Your task to perform on an android device: stop showing notifications on the lock screen Image 0: 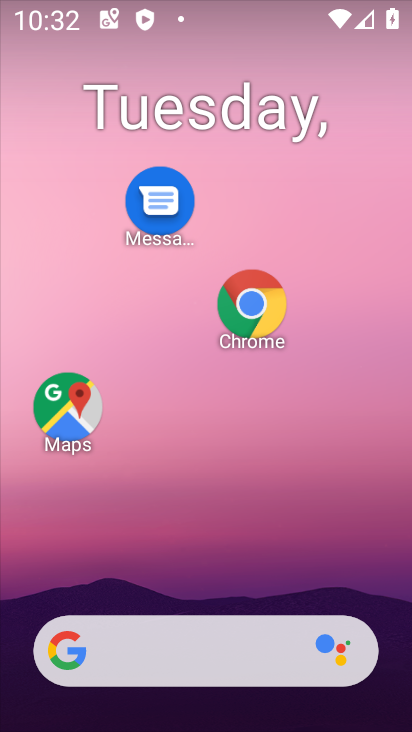
Step 0: press home button
Your task to perform on an android device: stop showing notifications on the lock screen Image 1: 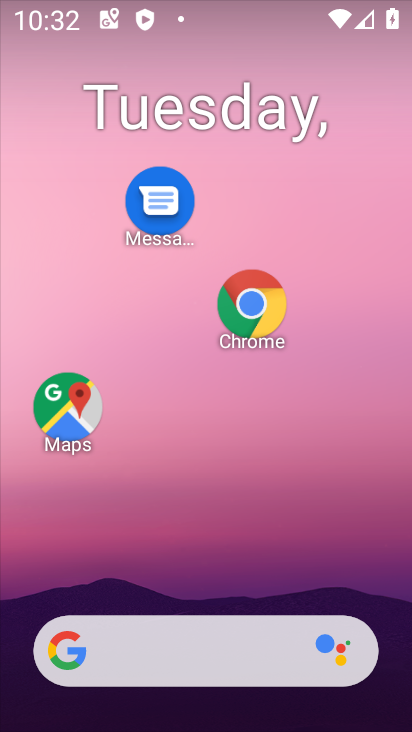
Step 1: drag from (180, 594) to (188, 232)
Your task to perform on an android device: stop showing notifications on the lock screen Image 2: 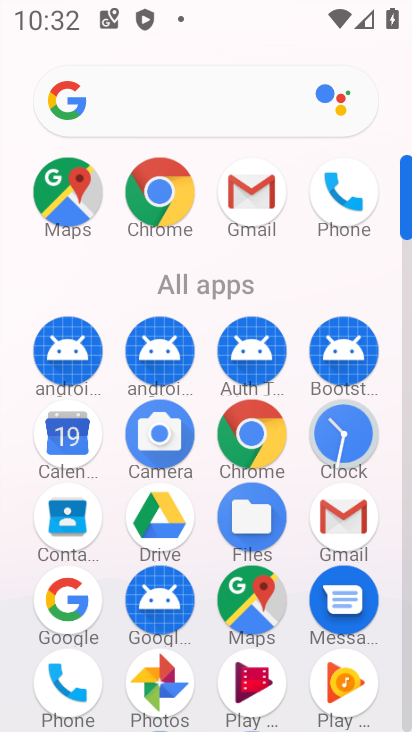
Step 2: drag from (249, 606) to (312, 179)
Your task to perform on an android device: stop showing notifications on the lock screen Image 3: 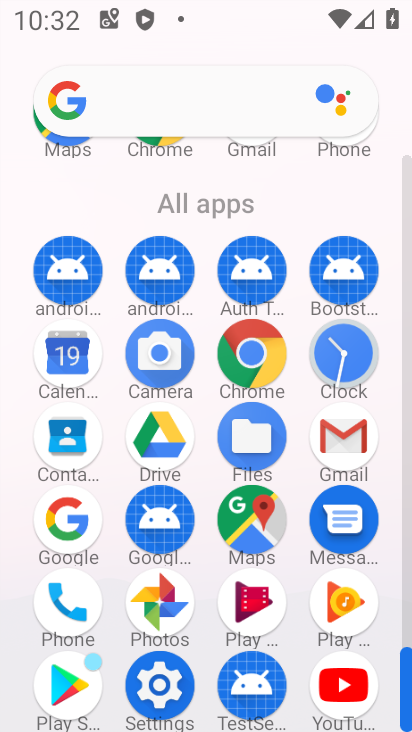
Step 3: click (162, 655)
Your task to perform on an android device: stop showing notifications on the lock screen Image 4: 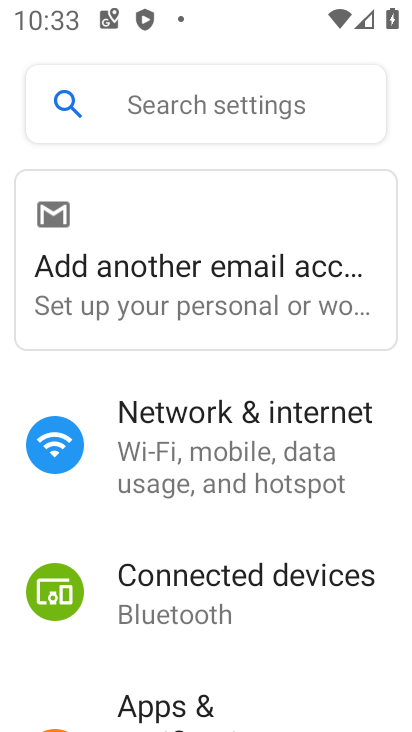
Step 4: drag from (198, 607) to (218, 450)
Your task to perform on an android device: stop showing notifications on the lock screen Image 5: 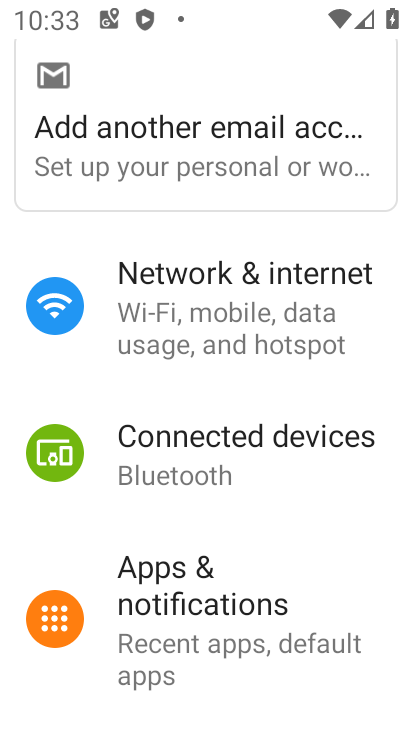
Step 5: click (174, 605)
Your task to perform on an android device: stop showing notifications on the lock screen Image 6: 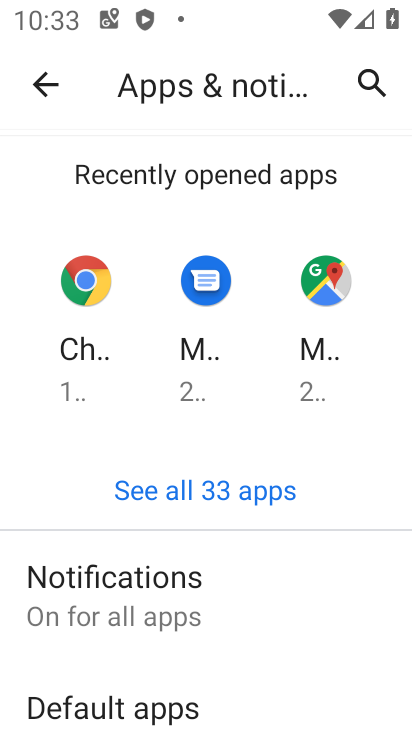
Step 6: drag from (193, 646) to (221, 408)
Your task to perform on an android device: stop showing notifications on the lock screen Image 7: 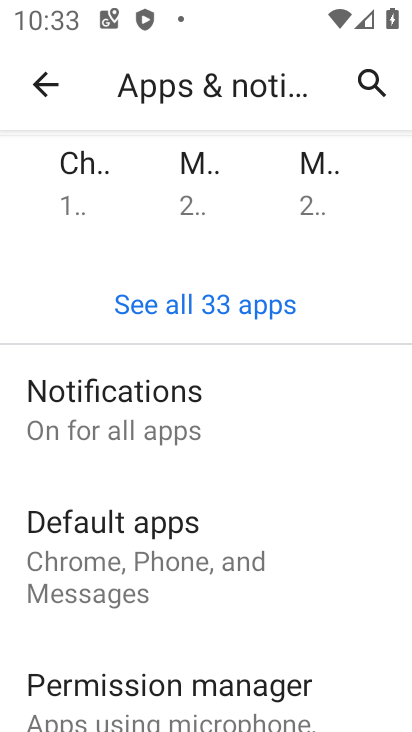
Step 7: click (153, 412)
Your task to perform on an android device: stop showing notifications on the lock screen Image 8: 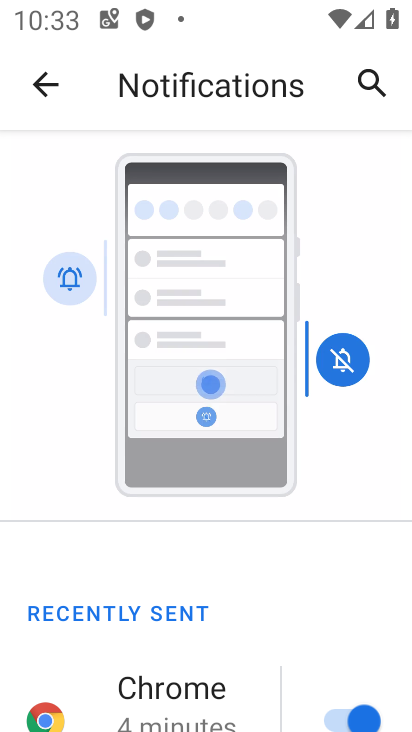
Step 8: drag from (201, 625) to (276, 154)
Your task to perform on an android device: stop showing notifications on the lock screen Image 9: 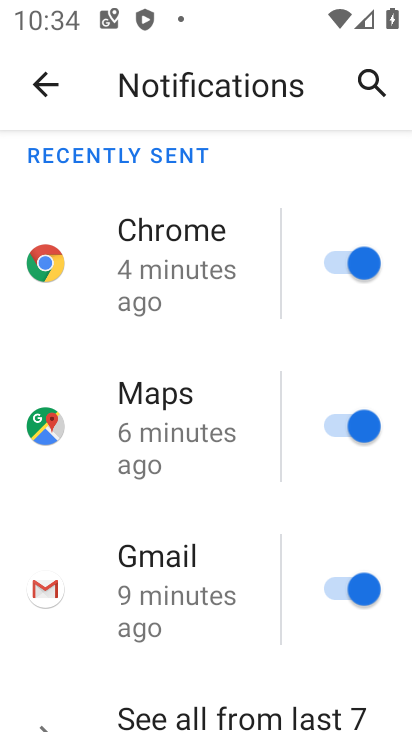
Step 9: drag from (107, 653) to (220, 256)
Your task to perform on an android device: stop showing notifications on the lock screen Image 10: 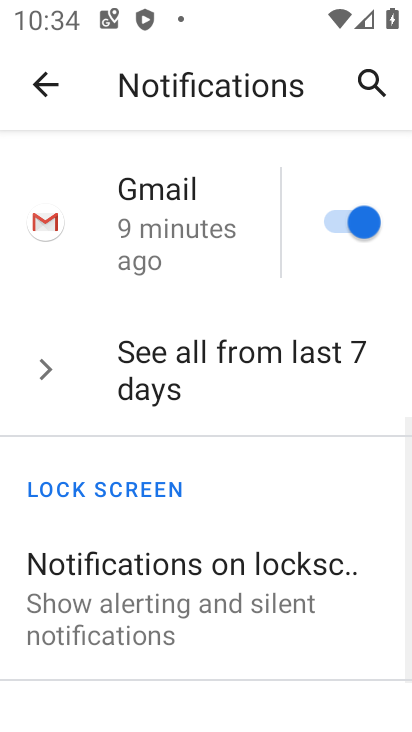
Step 10: click (128, 614)
Your task to perform on an android device: stop showing notifications on the lock screen Image 11: 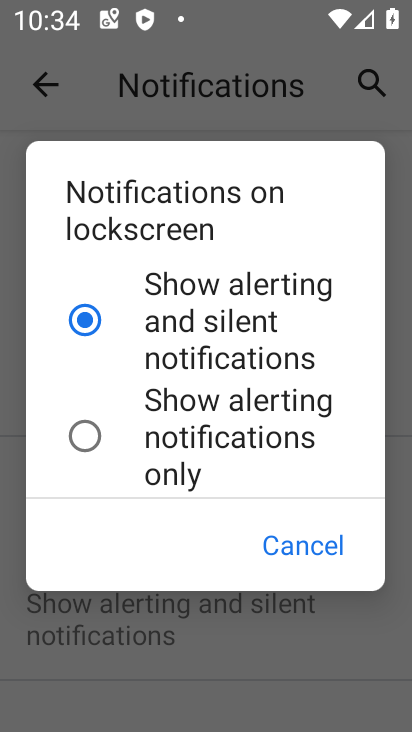
Step 11: drag from (177, 434) to (241, 226)
Your task to perform on an android device: stop showing notifications on the lock screen Image 12: 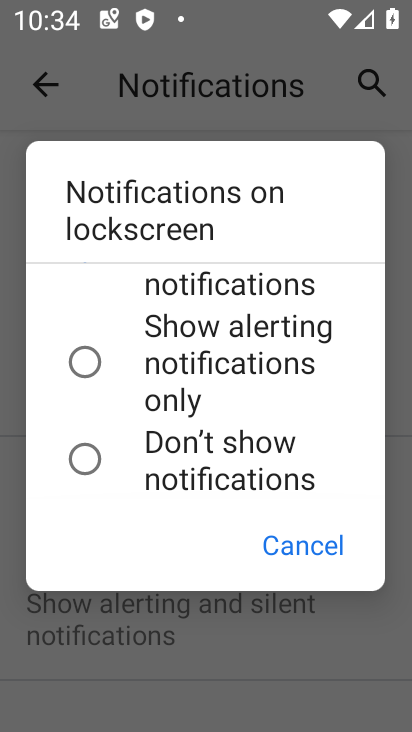
Step 12: click (190, 456)
Your task to perform on an android device: stop showing notifications on the lock screen Image 13: 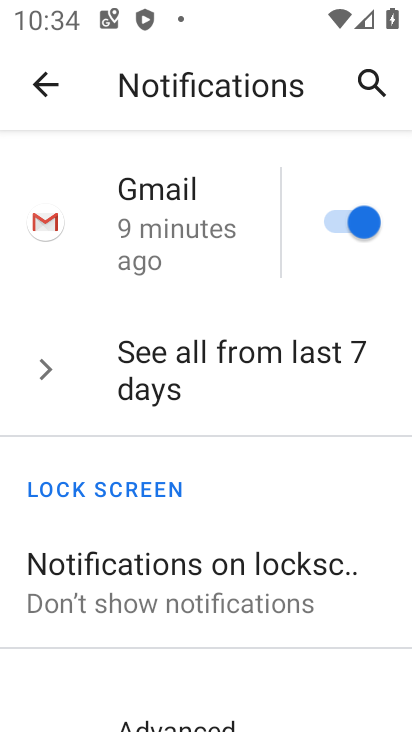
Step 13: task complete